Your task to perform on an android device: show emergency info Image 0: 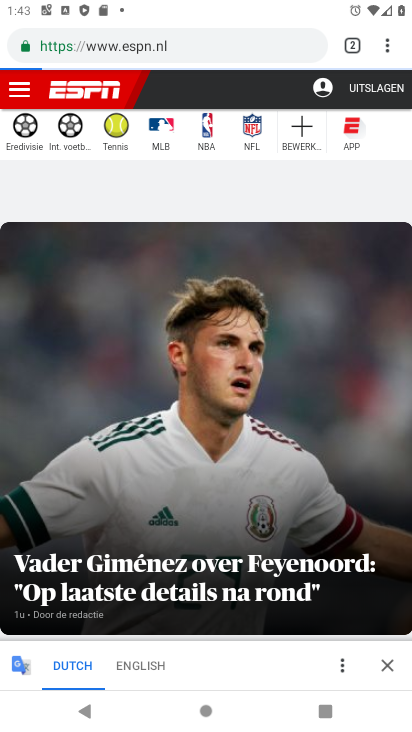
Step 0: press home button
Your task to perform on an android device: show emergency info Image 1: 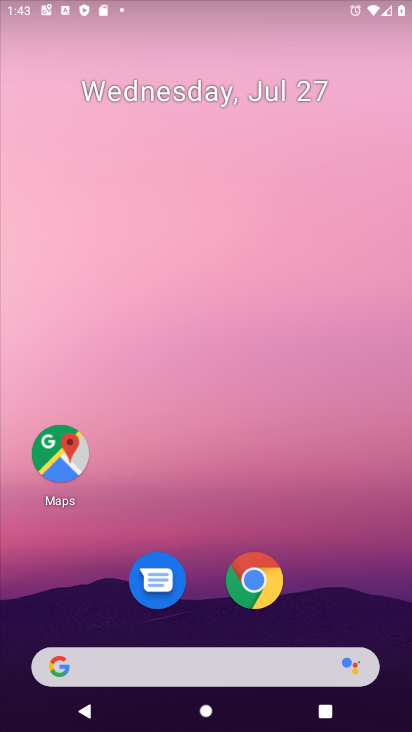
Step 1: drag from (269, 694) to (248, 127)
Your task to perform on an android device: show emergency info Image 2: 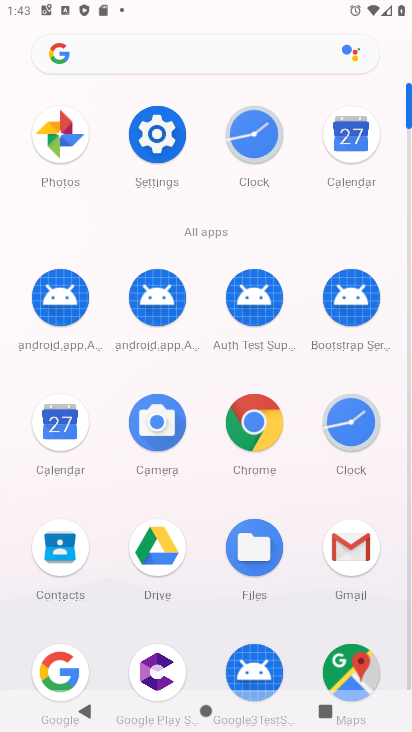
Step 2: click (163, 129)
Your task to perform on an android device: show emergency info Image 3: 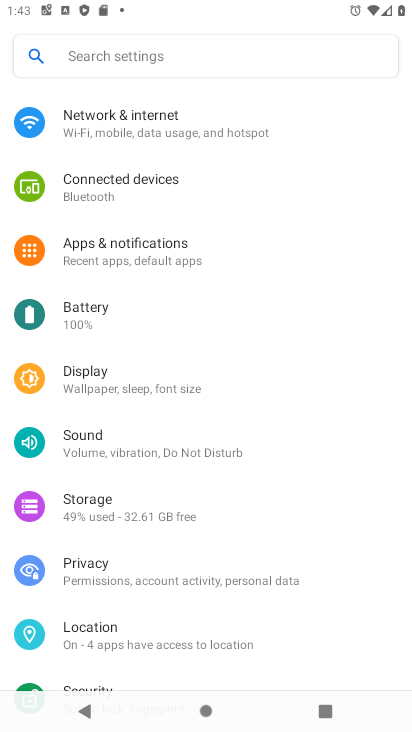
Step 3: click (96, 57)
Your task to perform on an android device: show emergency info Image 4: 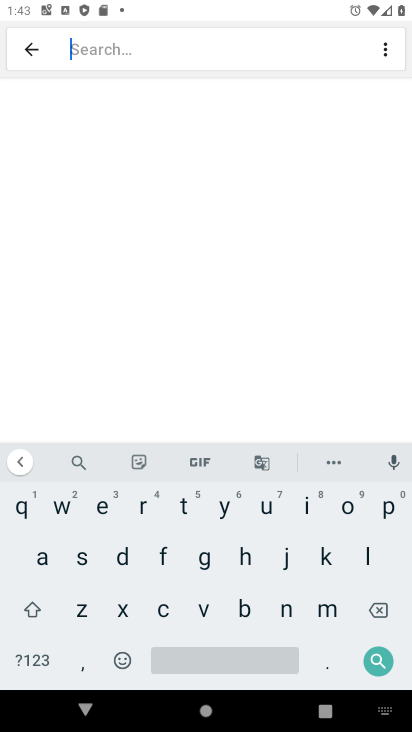
Step 4: click (101, 508)
Your task to perform on an android device: show emergency info Image 5: 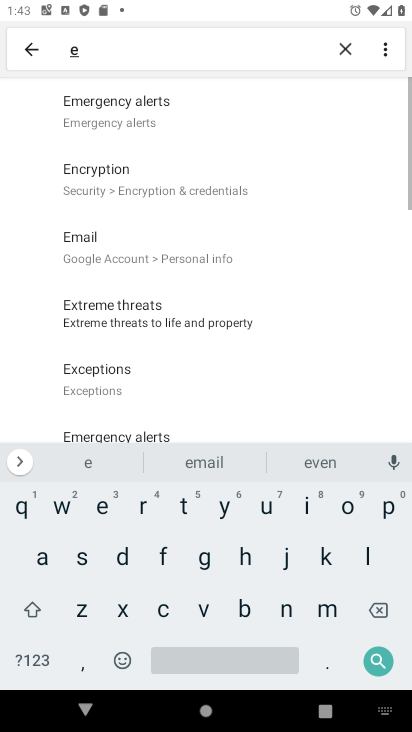
Step 5: click (323, 613)
Your task to perform on an android device: show emergency info Image 6: 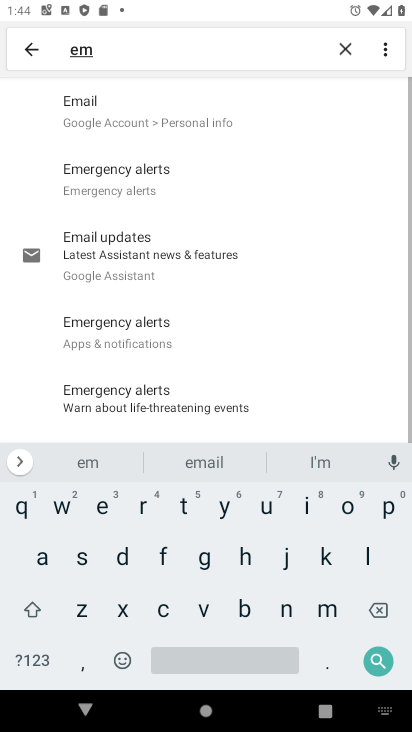
Step 6: click (98, 503)
Your task to perform on an android device: show emergency info Image 7: 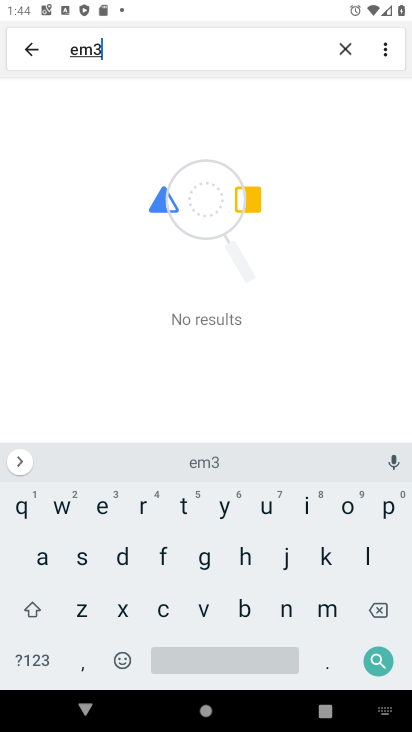
Step 7: click (378, 613)
Your task to perform on an android device: show emergency info Image 8: 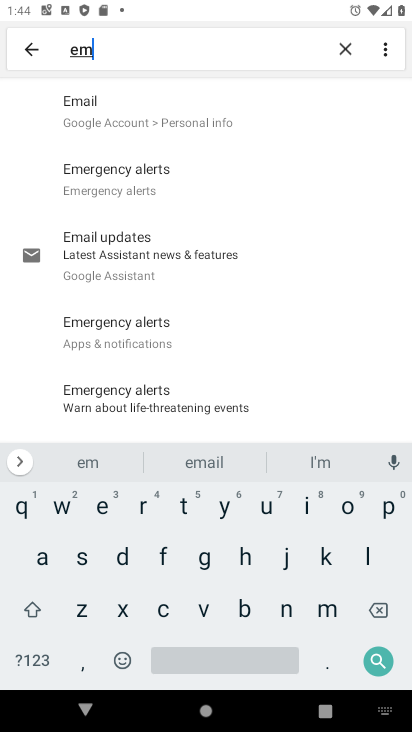
Step 8: click (100, 510)
Your task to perform on an android device: show emergency info Image 9: 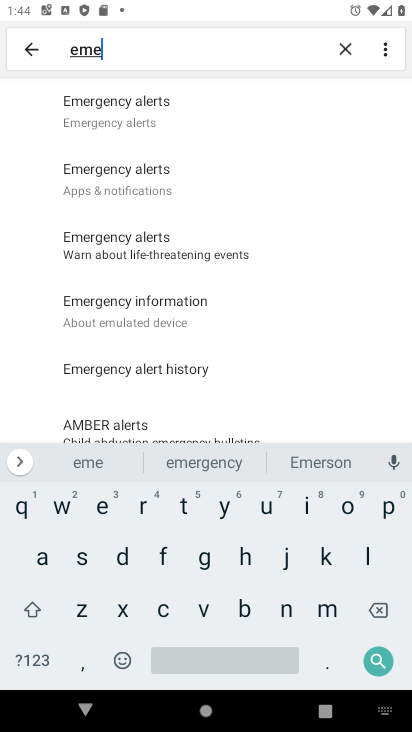
Step 9: click (186, 461)
Your task to perform on an android device: show emergency info Image 10: 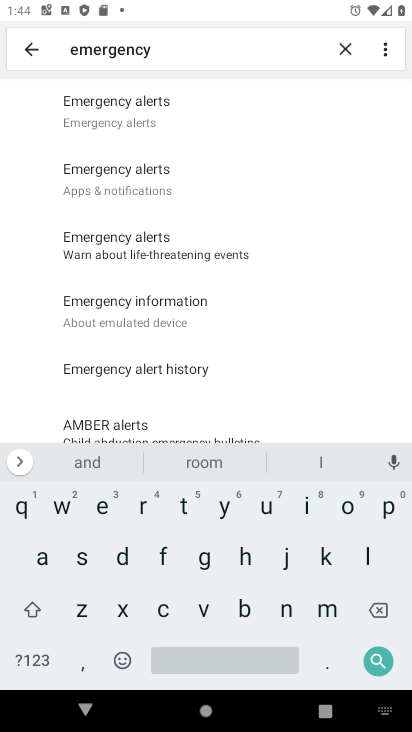
Step 10: click (305, 516)
Your task to perform on an android device: show emergency info Image 11: 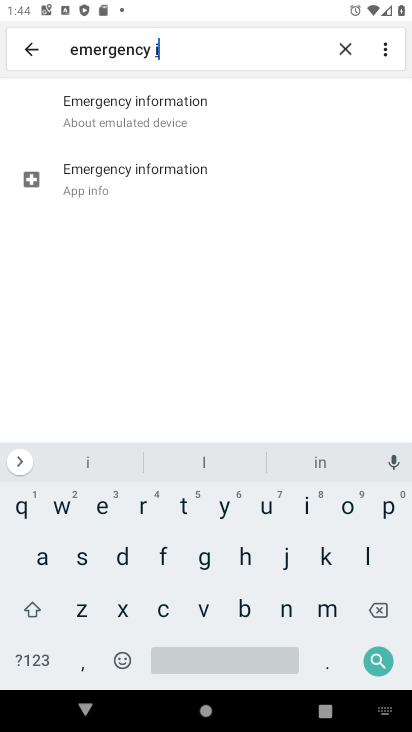
Step 11: click (162, 101)
Your task to perform on an android device: show emergency info Image 12: 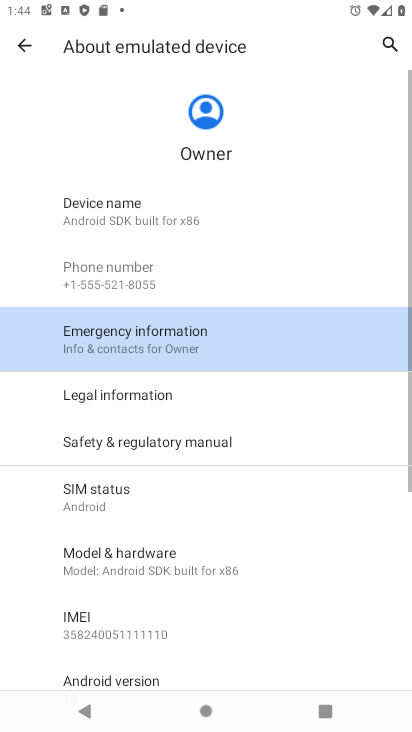
Step 12: click (82, 334)
Your task to perform on an android device: show emergency info Image 13: 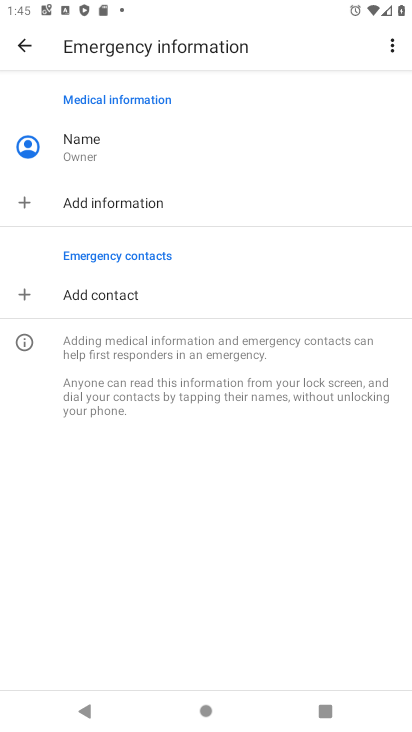
Step 13: task complete